Your task to perform on an android device: check storage Image 0: 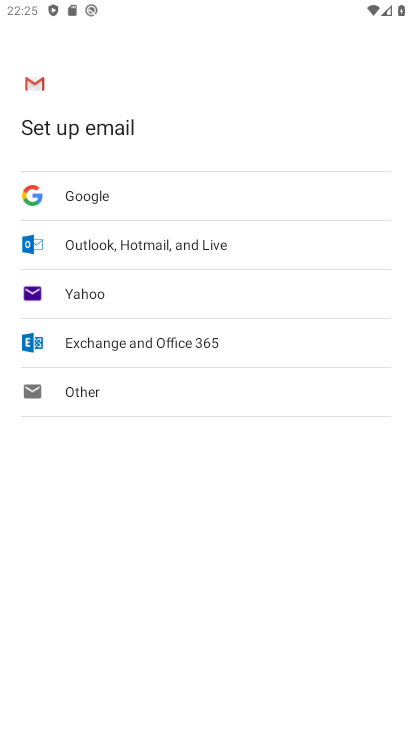
Step 0: press home button
Your task to perform on an android device: check storage Image 1: 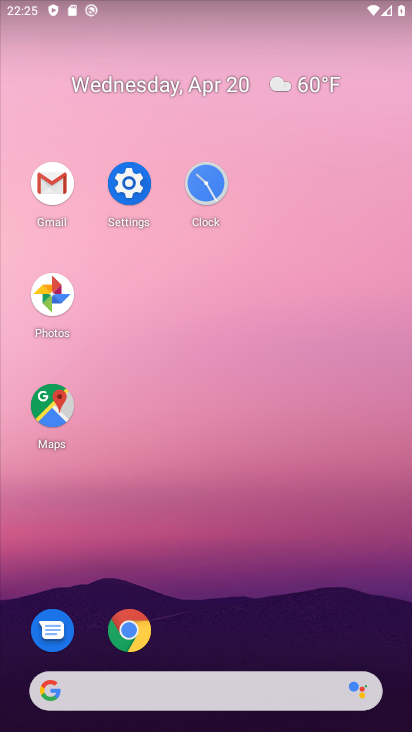
Step 1: click (124, 189)
Your task to perform on an android device: check storage Image 2: 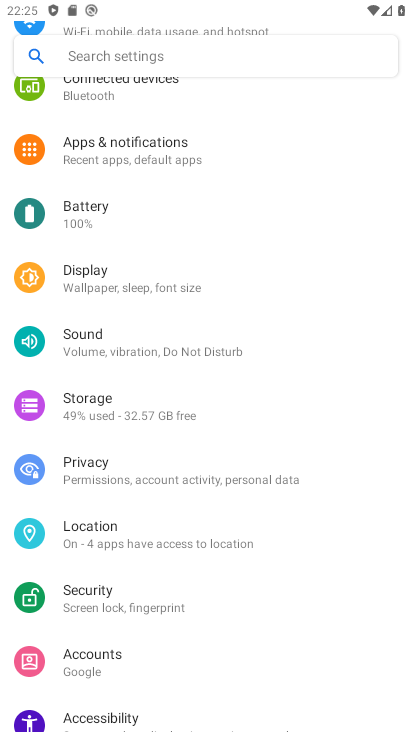
Step 2: click (147, 397)
Your task to perform on an android device: check storage Image 3: 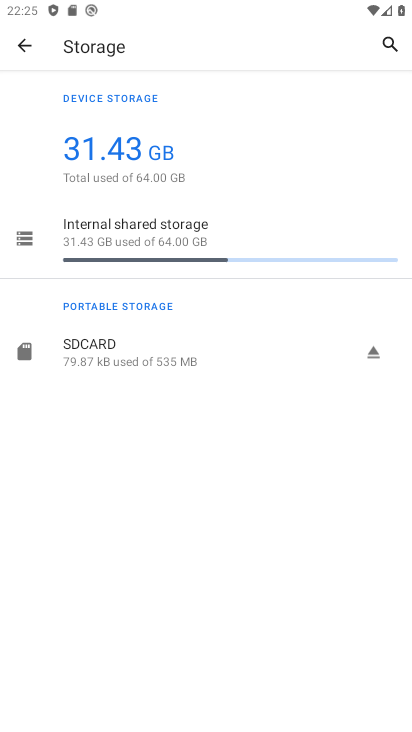
Step 3: task complete